Your task to perform on an android device: What's the weather? Image 0: 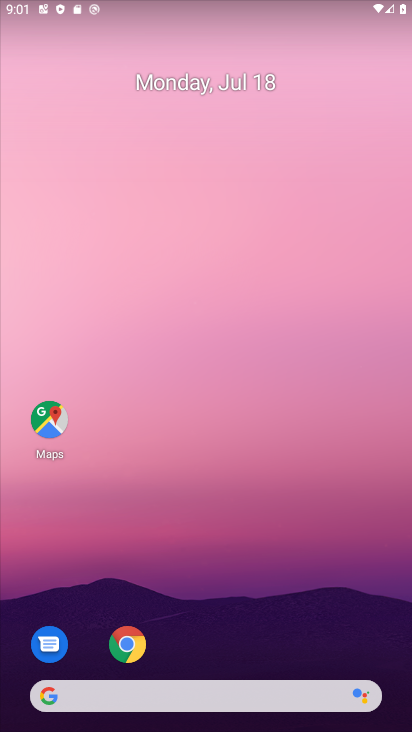
Step 0: click (155, 681)
Your task to perform on an android device: What's the weather? Image 1: 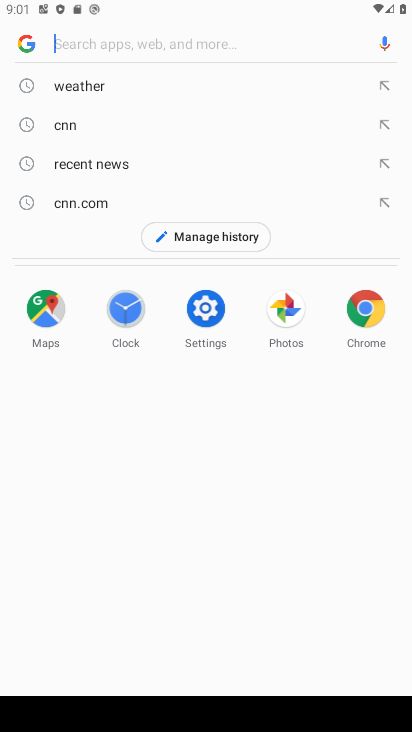
Step 1: click (79, 91)
Your task to perform on an android device: What's the weather? Image 2: 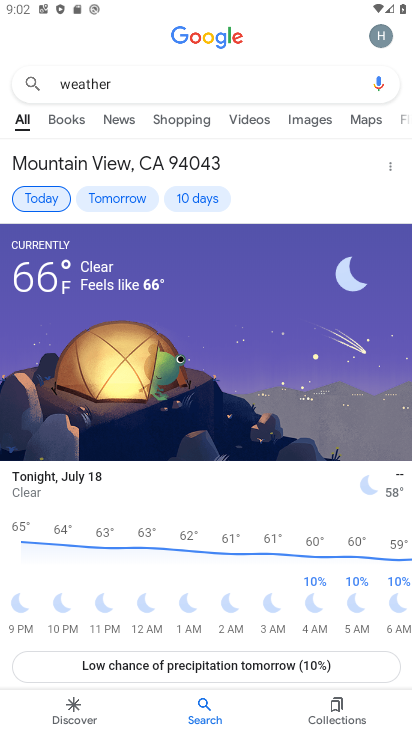
Step 2: task complete